Your task to perform on an android device: allow cookies in the chrome app Image 0: 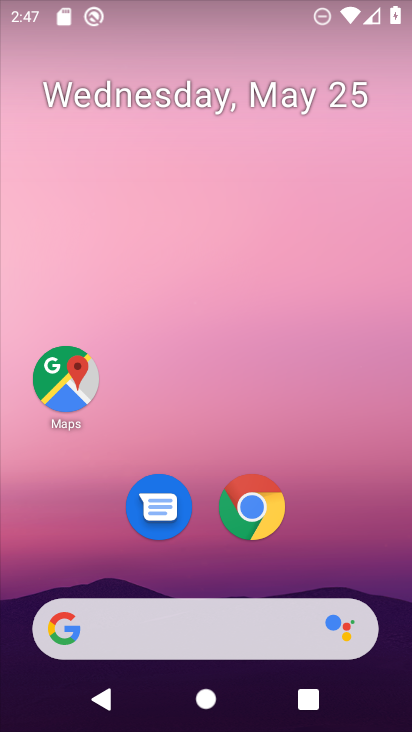
Step 0: drag from (224, 661) to (242, 159)
Your task to perform on an android device: allow cookies in the chrome app Image 1: 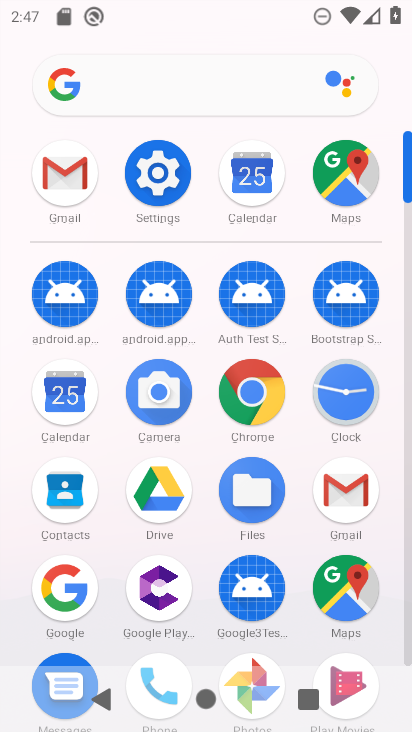
Step 1: click (261, 405)
Your task to perform on an android device: allow cookies in the chrome app Image 2: 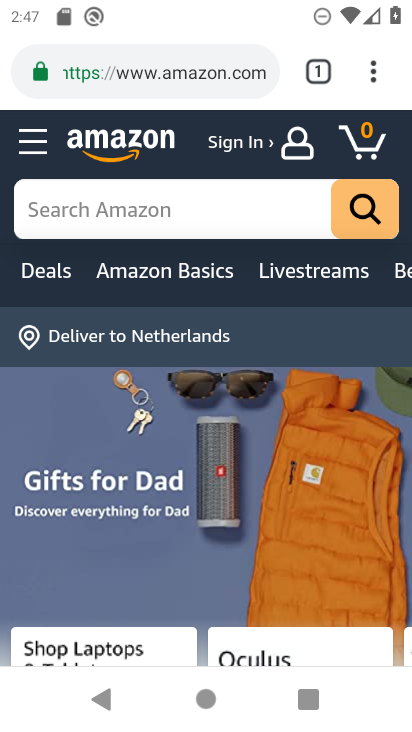
Step 2: click (380, 62)
Your task to perform on an android device: allow cookies in the chrome app Image 3: 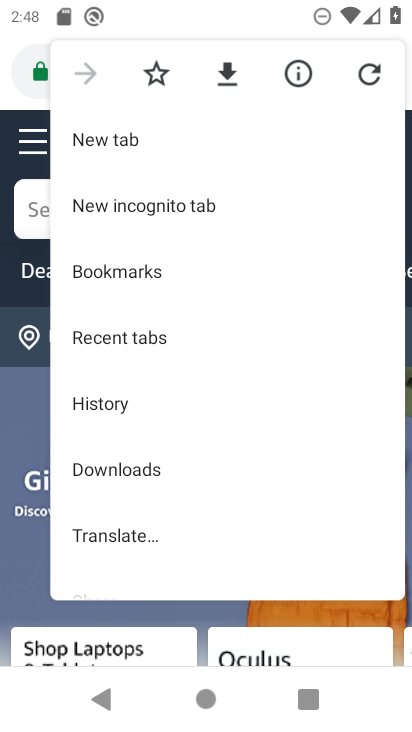
Step 3: drag from (186, 474) to (219, 239)
Your task to perform on an android device: allow cookies in the chrome app Image 4: 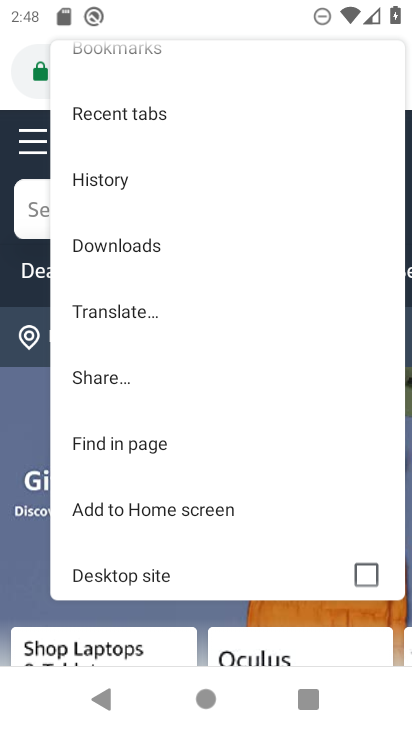
Step 4: drag from (200, 406) to (252, 113)
Your task to perform on an android device: allow cookies in the chrome app Image 5: 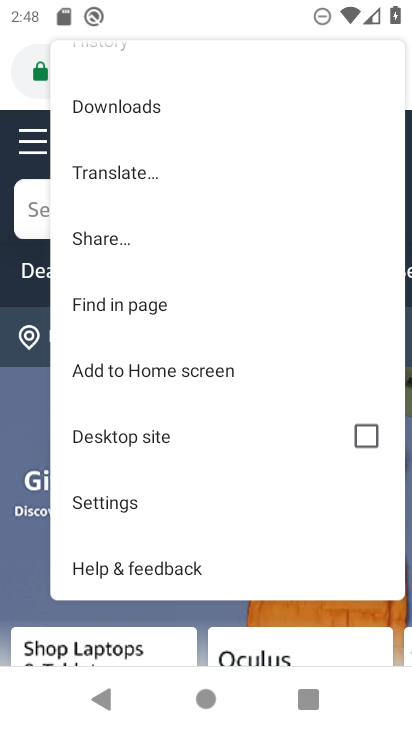
Step 5: click (135, 503)
Your task to perform on an android device: allow cookies in the chrome app Image 6: 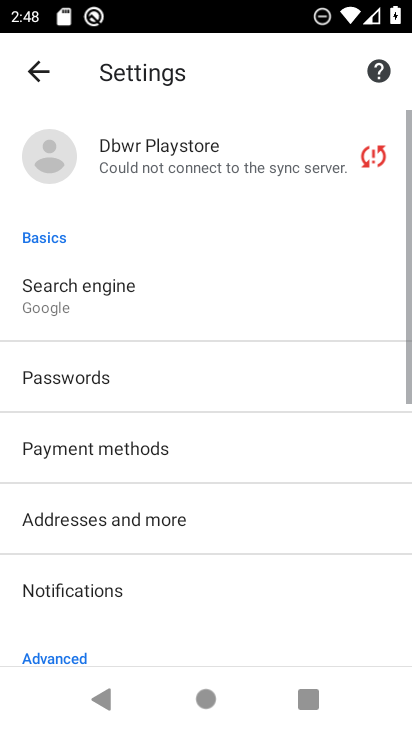
Step 6: drag from (142, 549) to (157, 188)
Your task to perform on an android device: allow cookies in the chrome app Image 7: 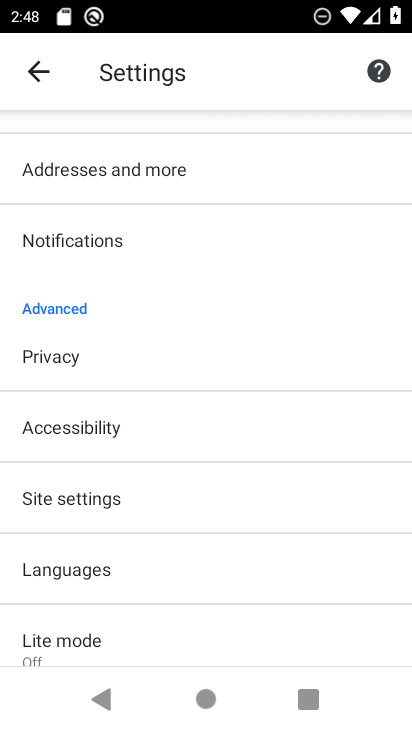
Step 7: click (92, 501)
Your task to perform on an android device: allow cookies in the chrome app Image 8: 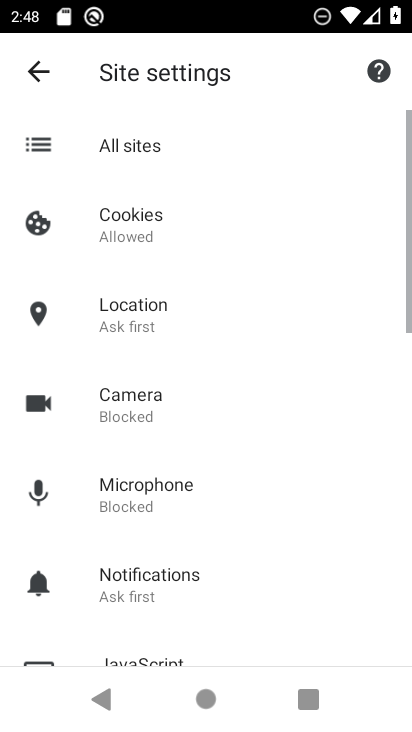
Step 8: click (166, 231)
Your task to perform on an android device: allow cookies in the chrome app Image 9: 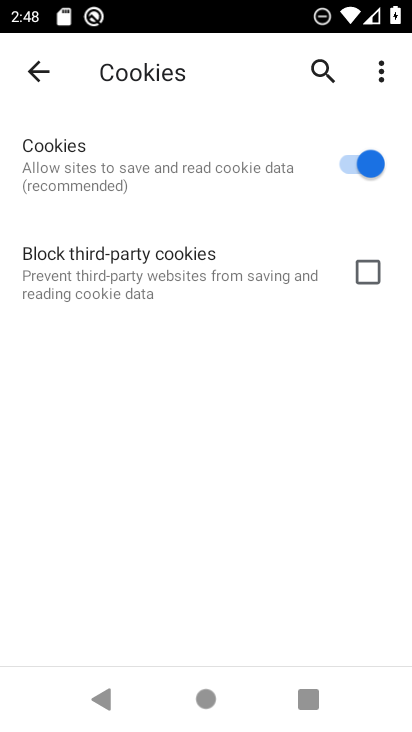
Step 9: task complete